Your task to perform on an android device: open device folders in google photos Image 0: 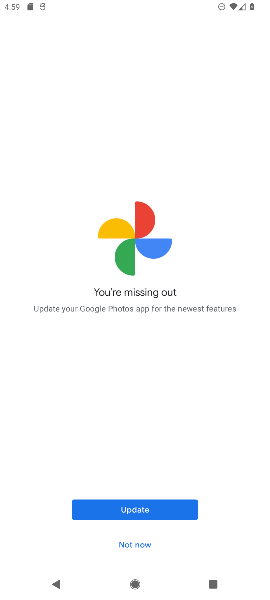
Step 0: press home button
Your task to perform on an android device: open device folders in google photos Image 1: 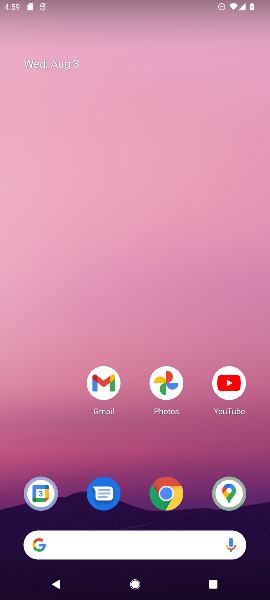
Step 1: drag from (50, 449) to (47, 114)
Your task to perform on an android device: open device folders in google photos Image 2: 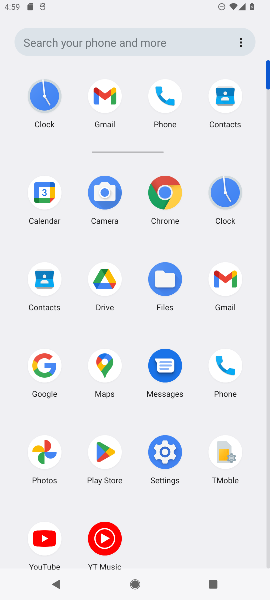
Step 2: click (47, 455)
Your task to perform on an android device: open device folders in google photos Image 3: 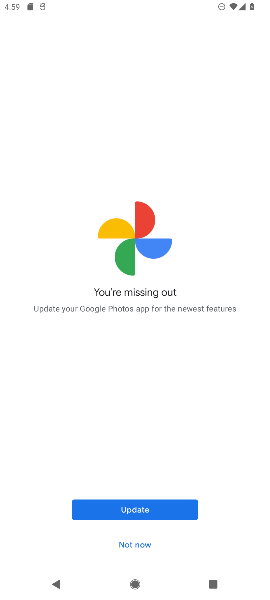
Step 3: click (137, 547)
Your task to perform on an android device: open device folders in google photos Image 4: 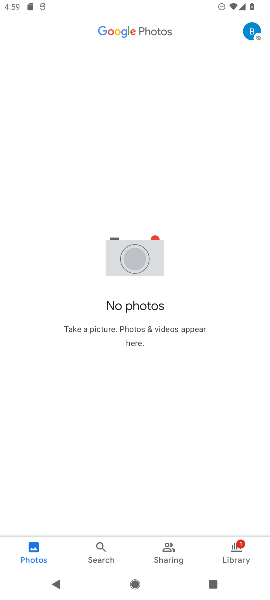
Step 4: click (250, 33)
Your task to perform on an android device: open device folders in google photos Image 5: 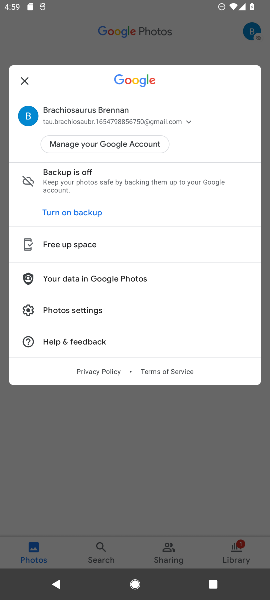
Step 5: task complete